Your task to perform on an android device: Search for vegetarian restaurants on Maps Image 0: 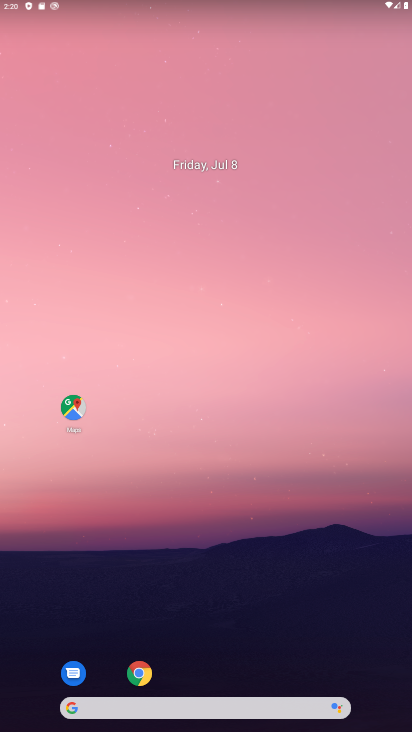
Step 0: drag from (204, 700) to (317, 190)
Your task to perform on an android device: Search for vegetarian restaurants on Maps Image 1: 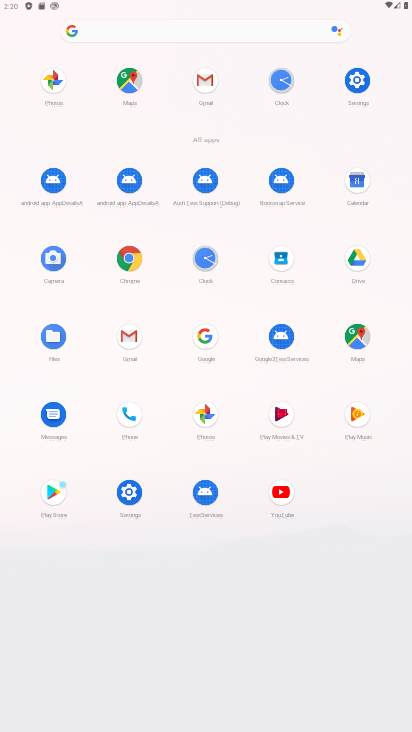
Step 1: click (353, 339)
Your task to perform on an android device: Search for vegetarian restaurants on Maps Image 2: 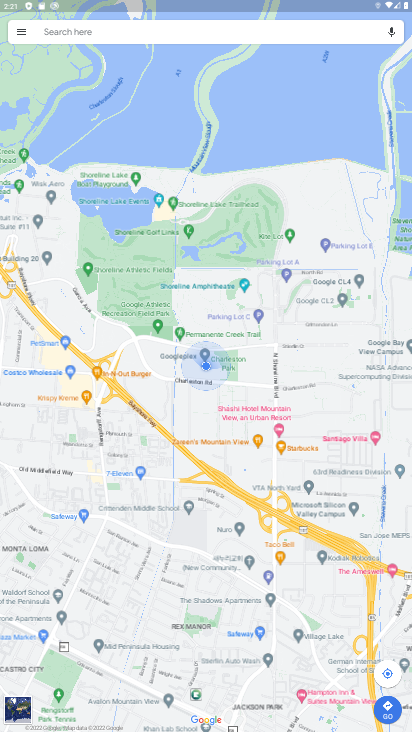
Step 2: click (219, 35)
Your task to perform on an android device: Search for vegetarian restaurants on Maps Image 3: 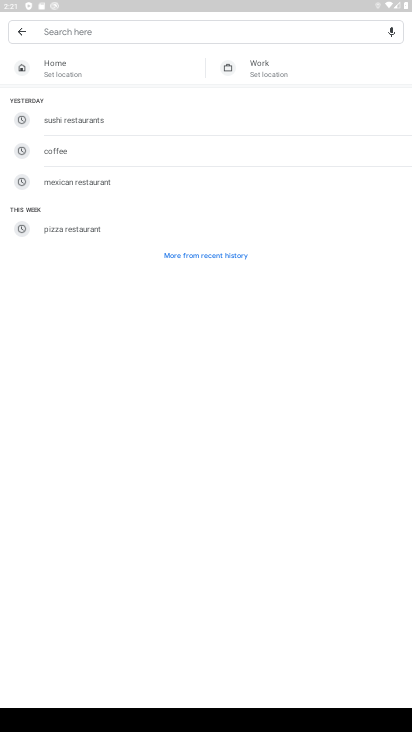
Step 3: type "vegetarian restaurants"
Your task to perform on an android device: Search for vegetarian restaurants on Maps Image 4: 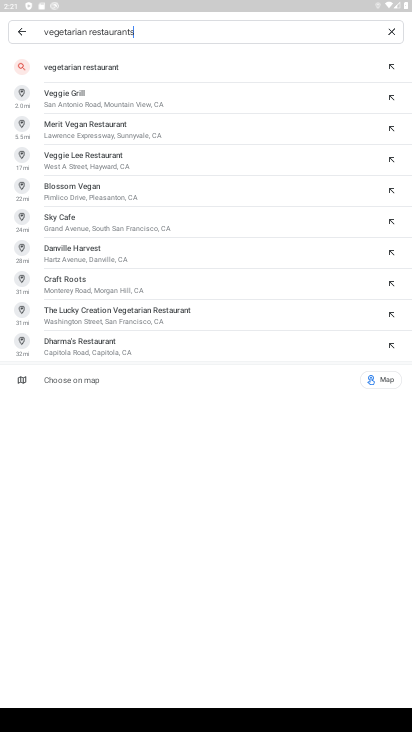
Step 4: click (71, 55)
Your task to perform on an android device: Search for vegetarian restaurants on Maps Image 5: 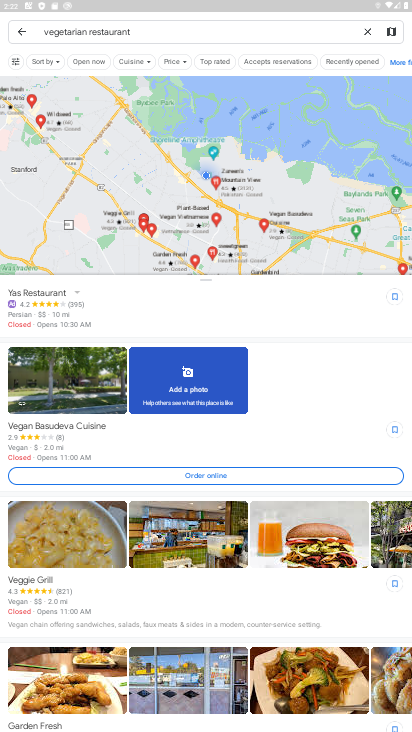
Step 5: task complete